Your task to perform on an android device: Set the phone to "Do not disturb". Image 0: 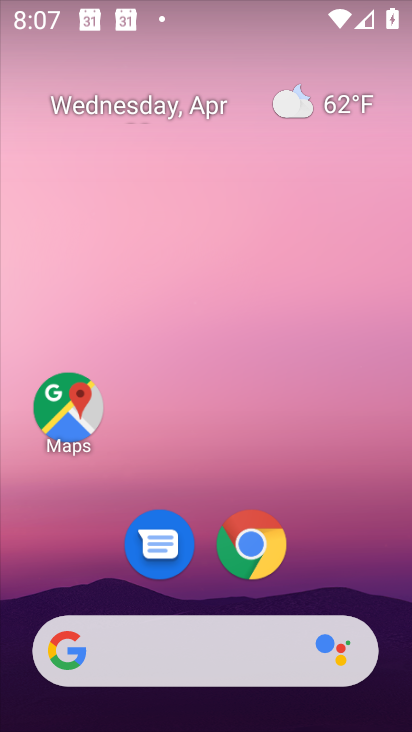
Step 0: drag from (194, 586) to (196, 182)
Your task to perform on an android device: Set the phone to "Do not disturb". Image 1: 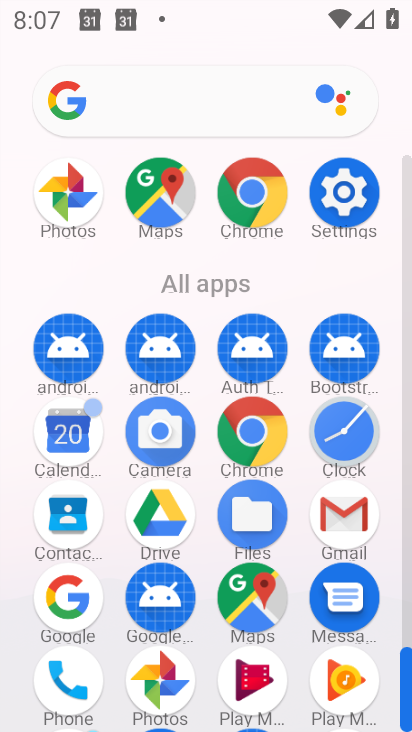
Step 1: click (343, 181)
Your task to perform on an android device: Set the phone to "Do not disturb". Image 2: 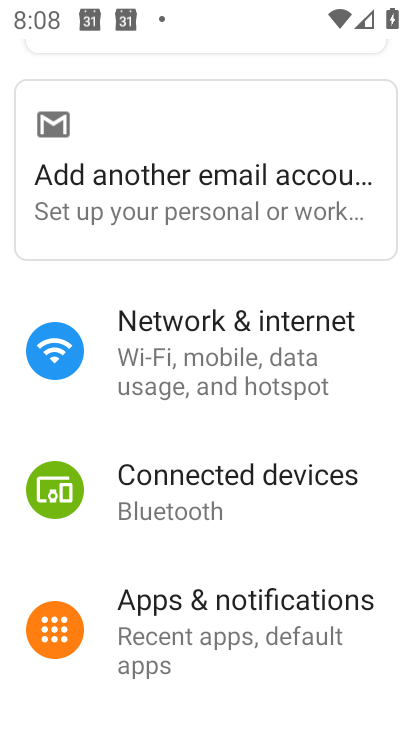
Step 2: drag from (269, 564) to (267, 210)
Your task to perform on an android device: Set the phone to "Do not disturb". Image 3: 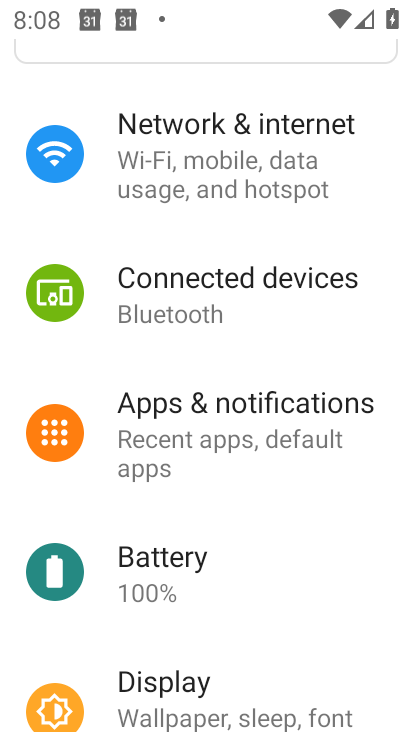
Step 3: drag from (238, 490) to (256, 212)
Your task to perform on an android device: Set the phone to "Do not disturb". Image 4: 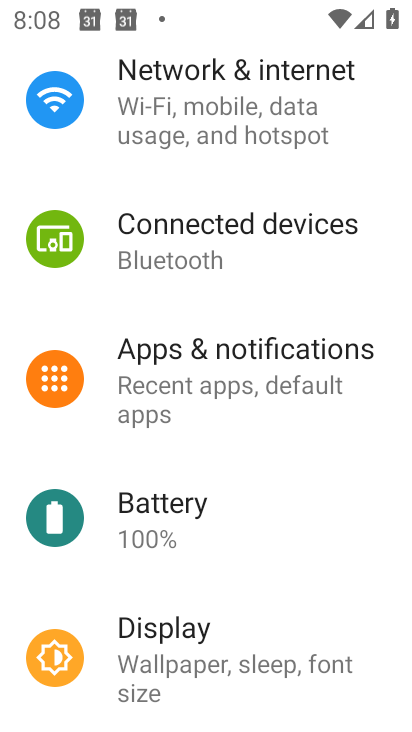
Step 4: drag from (211, 616) to (254, 326)
Your task to perform on an android device: Set the phone to "Do not disturb". Image 5: 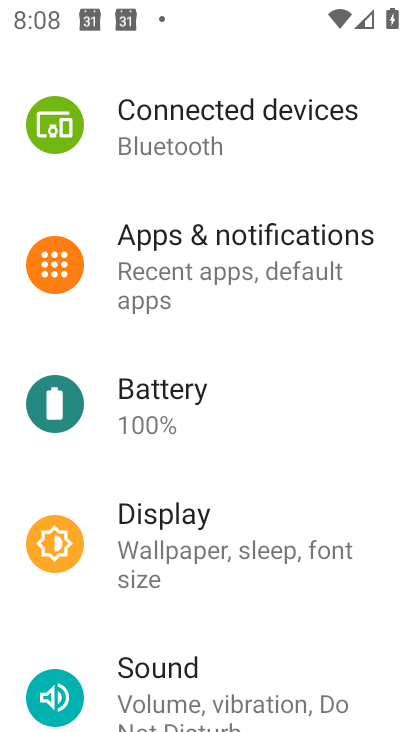
Step 5: drag from (254, 614) to (293, 340)
Your task to perform on an android device: Set the phone to "Do not disturb". Image 6: 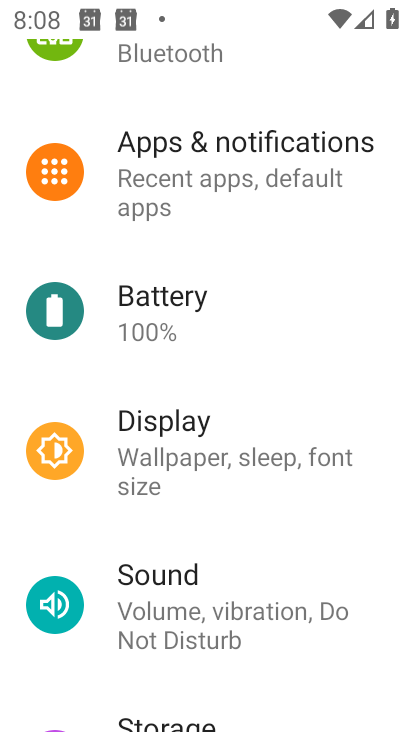
Step 6: drag from (284, 587) to (296, 374)
Your task to perform on an android device: Set the phone to "Do not disturb". Image 7: 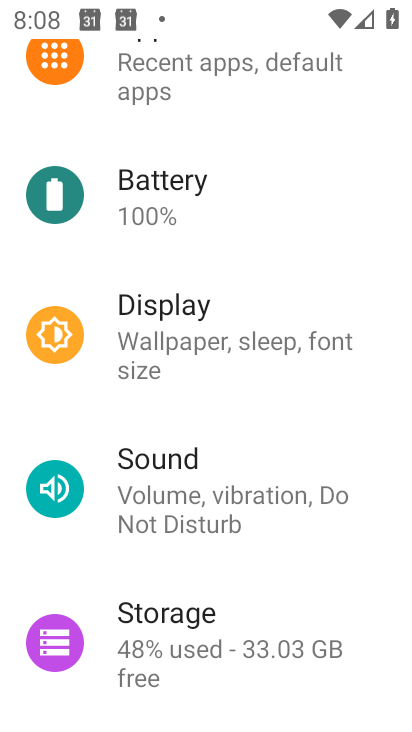
Step 7: click (232, 468)
Your task to perform on an android device: Set the phone to "Do not disturb". Image 8: 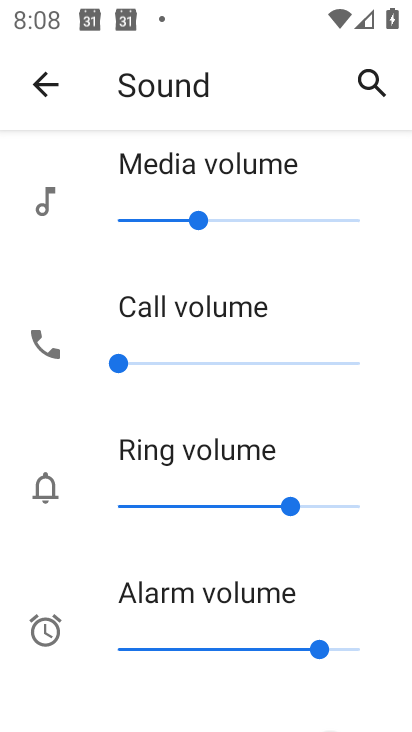
Step 8: drag from (191, 621) to (255, 134)
Your task to perform on an android device: Set the phone to "Do not disturb". Image 9: 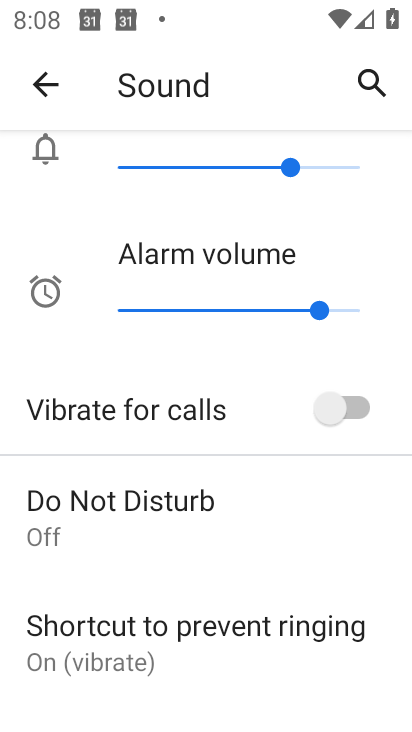
Step 9: drag from (249, 600) to (236, 283)
Your task to perform on an android device: Set the phone to "Do not disturb". Image 10: 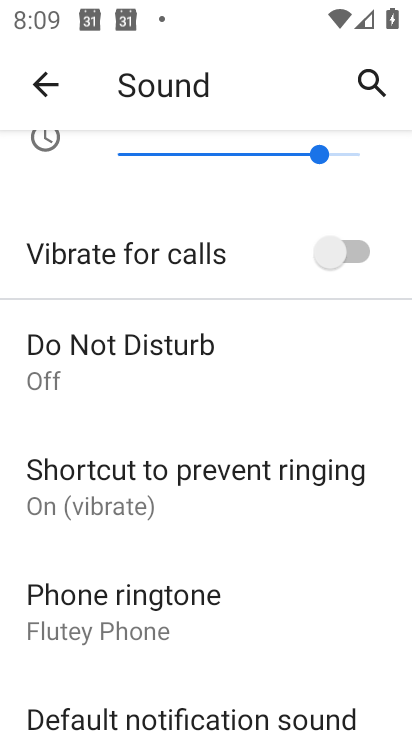
Step 10: click (163, 326)
Your task to perform on an android device: Set the phone to "Do not disturb". Image 11: 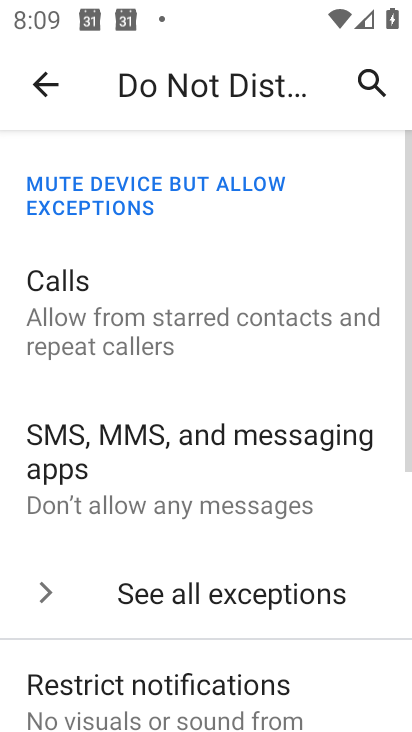
Step 11: drag from (302, 637) to (302, 292)
Your task to perform on an android device: Set the phone to "Do not disturb". Image 12: 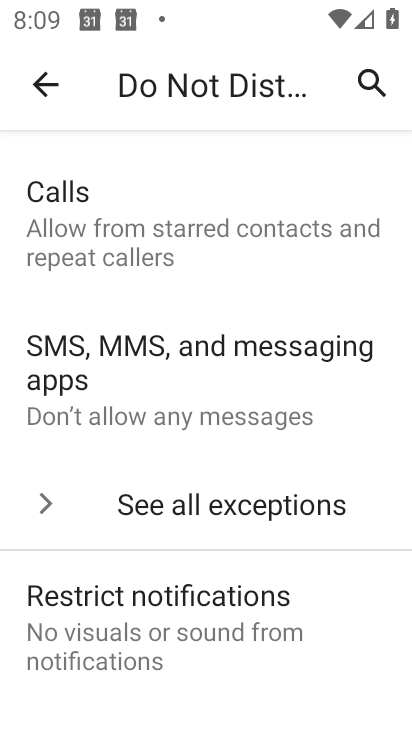
Step 12: drag from (273, 591) to (277, 277)
Your task to perform on an android device: Set the phone to "Do not disturb". Image 13: 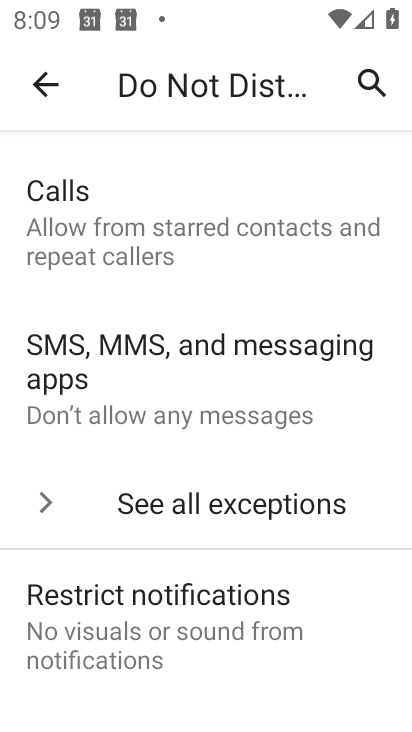
Step 13: drag from (266, 613) to (286, 232)
Your task to perform on an android device: Set the phone to "Do not disturb". Image 14: 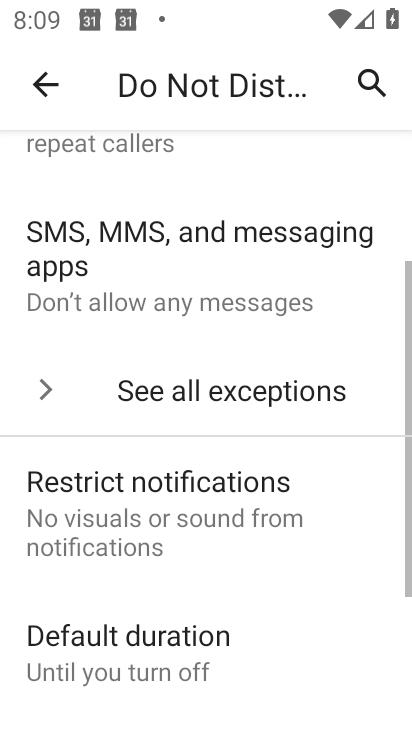
Step 14: drag from (228, 662) to (232, 260)
Your task to perform on an android device: Set the phone to "Do not disturb". Image 15: 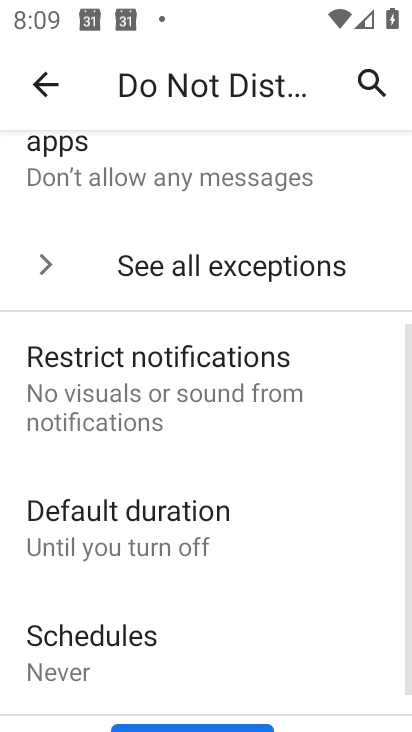
Step 15: drag from (225, 590) to (243, 319)
Your task to perform on an android device: Set the phone to "Do not disturb". Image 16: 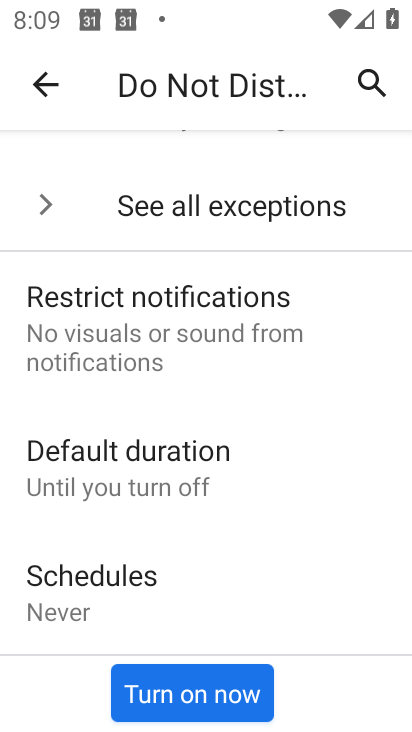
Step 16: click (197, 681)
Your task to perform on an android device: Set the phone to "Do not disturb". Image 17: 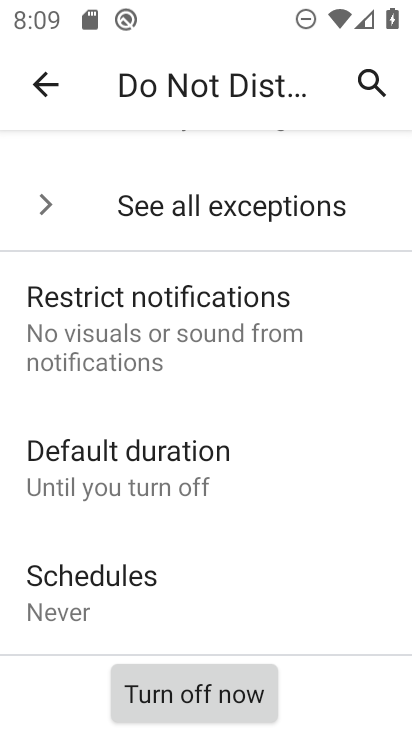
Step 17: task complete